Your task to perform on an android device: Open Wikipedia Image 0: 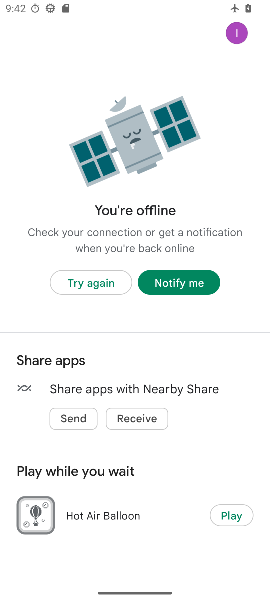
Step 0: press home button
Your task to perform on an android device: Open Wikipedia Image 1: 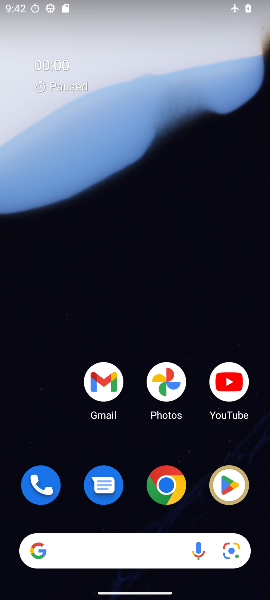
Step 1: drag from (192, 442) to (178, 20)
Your task to perform on an android device: Open Wikipedia Image 2: 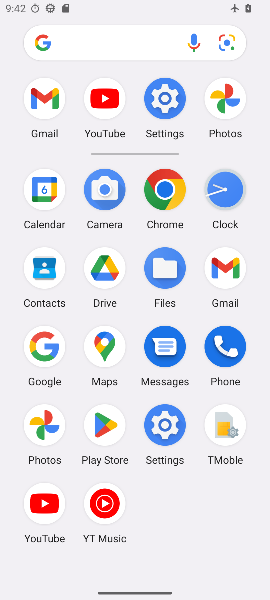
Step 2: click (168, 183)
Your task to perform on an android device: Open Wikipedia Image 3: 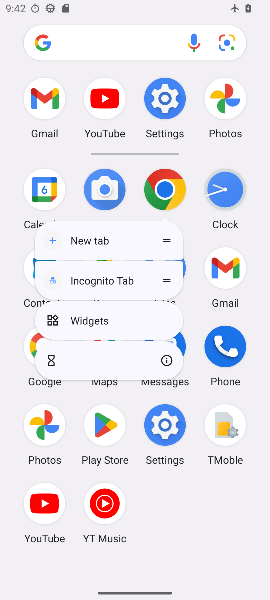
Step 3: click (162, 195)
Your task to perform on an android device: Open Wikipedia Image 4: 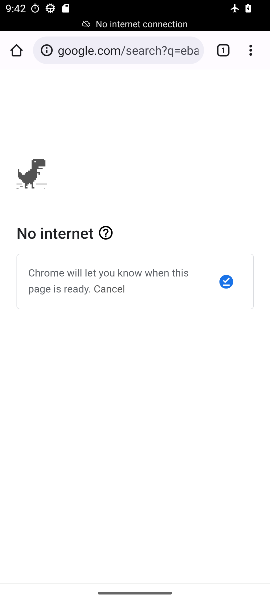
Step 4: click (133, 57)
Your task to perform on an android device: Open Wikipedia Image 5: 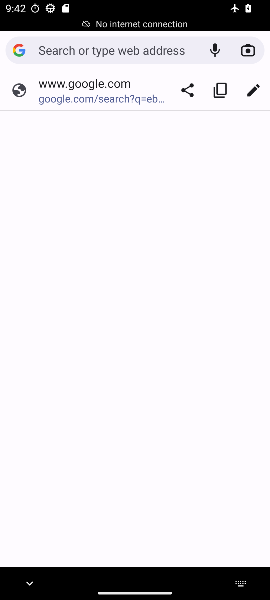
Step 5: type "wikiedia"
Your task to perform on an android device: Open Wikipedia Image 6: 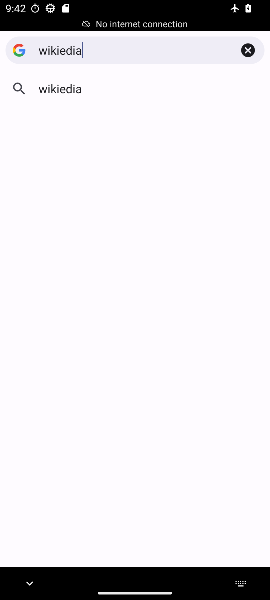
Step 6: click (51, 80)
Your task to perform on an android device: Open Wikipedia Image 7: 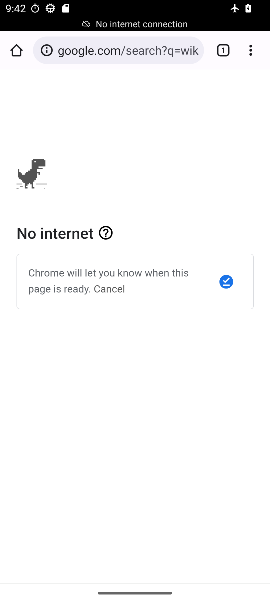
Step 7: task complete